Your task to perform on an android device: Open Google Chrome and click the shortcut for Amazon.com Image 0: 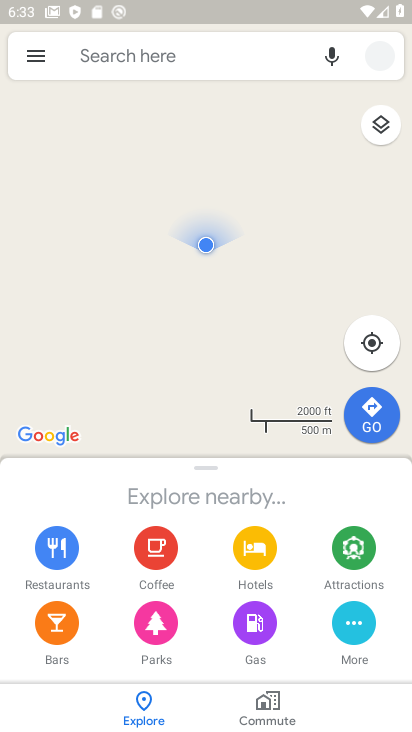
Step 0: drag from (221, 508) to (325, 202)
Your task to perform on an android device: Open Google Chrome and click the shortcut for Amazon.com Image 1: 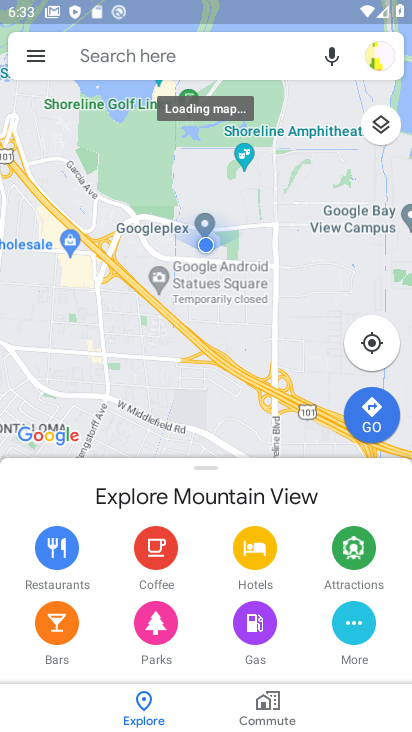
Step 1: press home button
Your task to perform on an android device: Open Google Chrome and click the shortcut for Amazon.com Image 2: 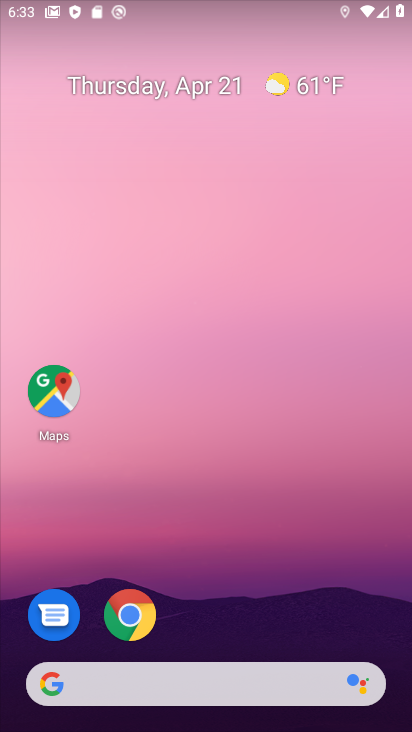
Step 2: drag from (193, 626) to (262, 208)
Your task to perform on an android device: Open Google Chrome and click the shortcut for Amazon.com Image 3: 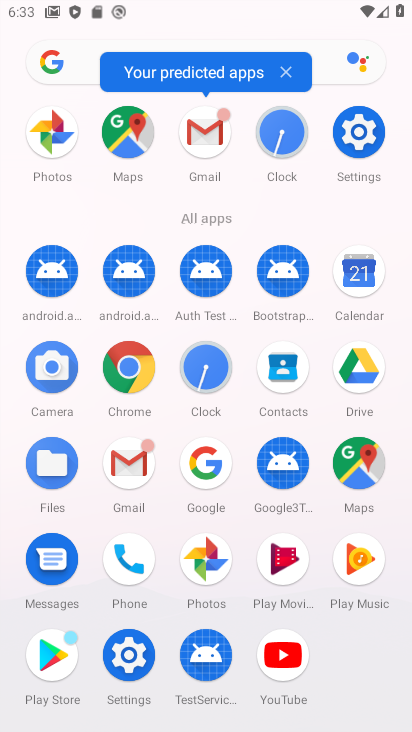
Step 3: click (133, 365)
Your task to perform on an android device: Open Google Chrome and click the shortcut for Amazon.com Image 4: 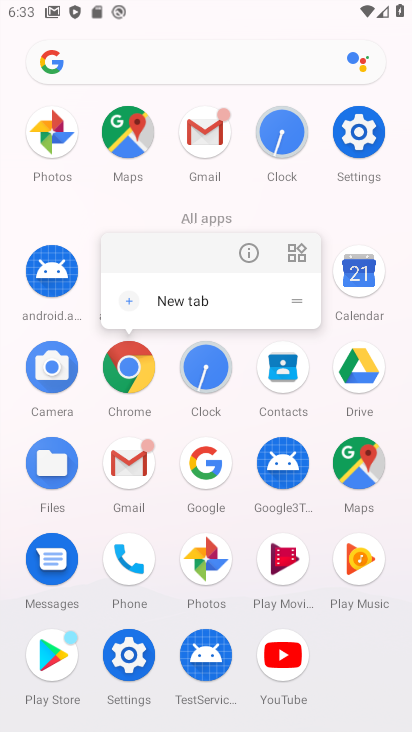
Step 4: click (251, 248)
Your task to perform on an android device: Open Google Chrome and click the shortcut for Amazon.com Image 5: 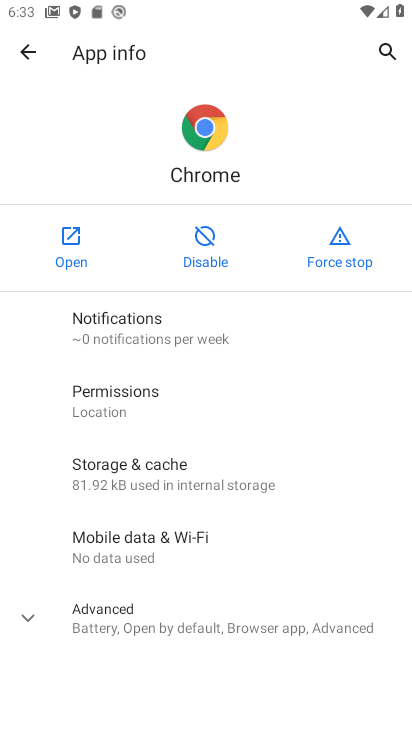
Step 5: click (53, 241)
Your task to perform on an android device: Open Google Chrome and click the shortcut for Amazon.com Image 6: 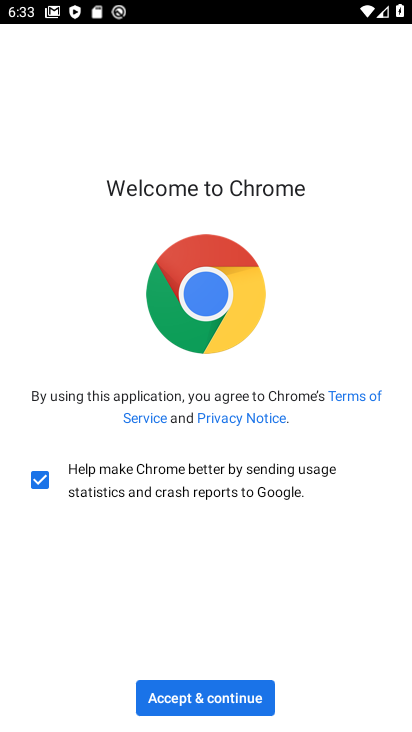
Step 6: click (228, 712)
Your task to perform on an android device: Open Google Chrome and click the shortcut for Amazon.com Image 7: 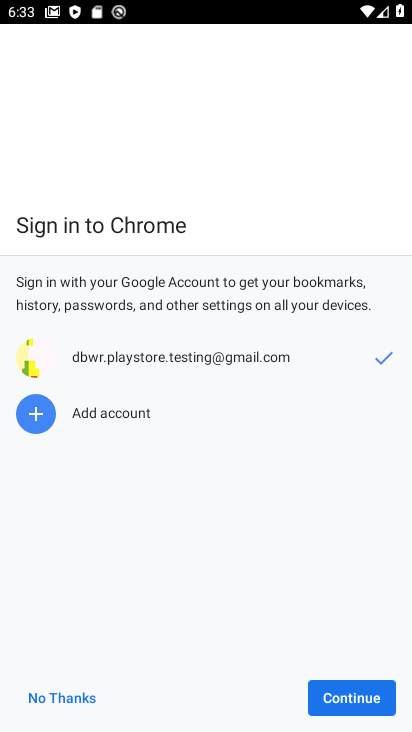
Step 7: click (326, 695)
Your task to perform on an android device: Open Google Chrome and click the shortcut for Amazon.com Image 8: 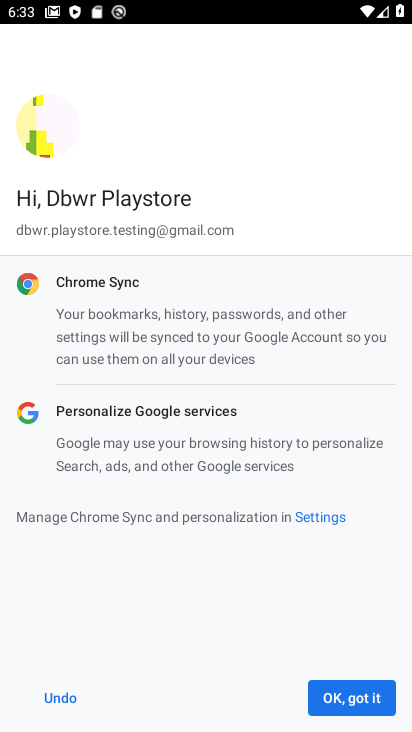
Step 8: click (336, 705)
Your task to perform on an android device: Open Google Chrome and click the shortcut for Amazon.com Image 9: 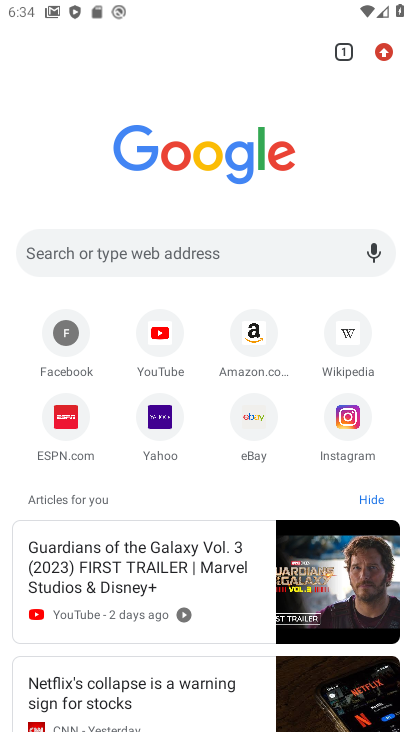
Step 9: click (252, 337)
Your task to perform on an android device: Open Google Chrome and click the shortcut for Amazon.com Image 10: 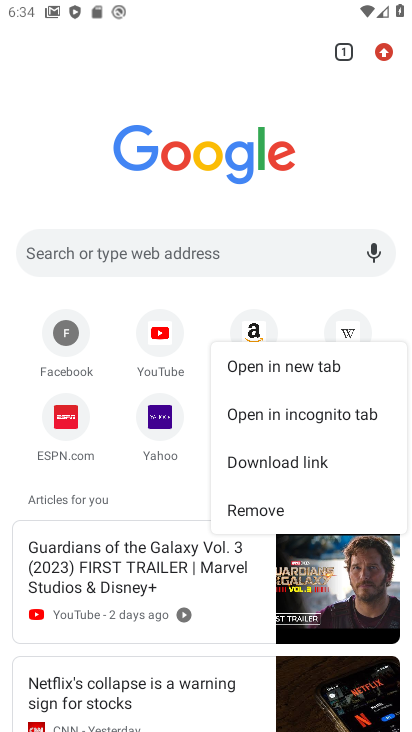
Step 10: click (265, 332)
Your task to perform on an android device: Open Google Chrome and click the shortcut for Amazon.com Image 11: 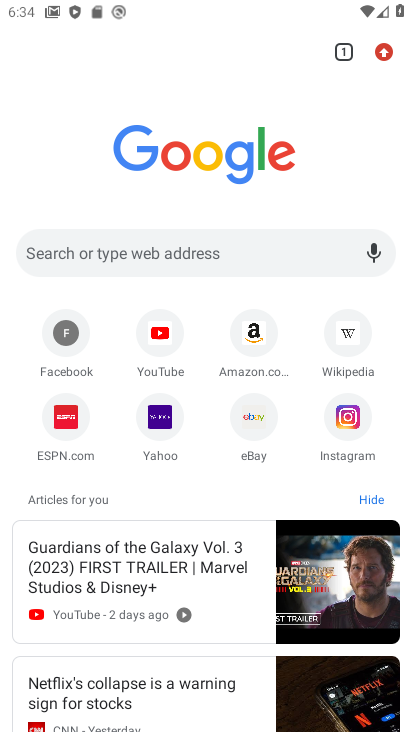
Step 11: click (265, 332)
Your task to perform on an android device: Open Google Chrome and click the shortcut for Amazon.com Image 12: 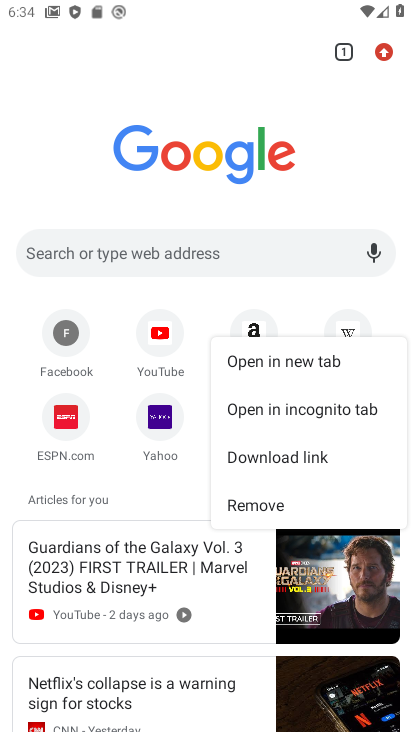
Step 12: click (258, 332)
Your task to perform on an android device: Open Google Chrome and click the shortcut for Amazon.com Image 13: 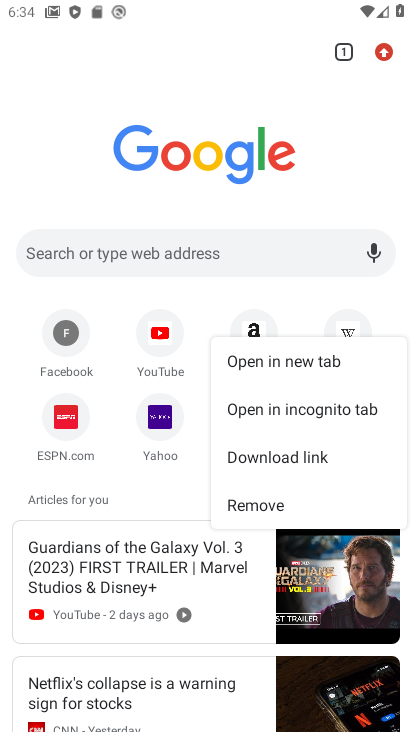
Step 13: click (255, 343)
Your task to perform on an android device: Open Google Chrome and click the shortcut for Amazon.com Image 14: 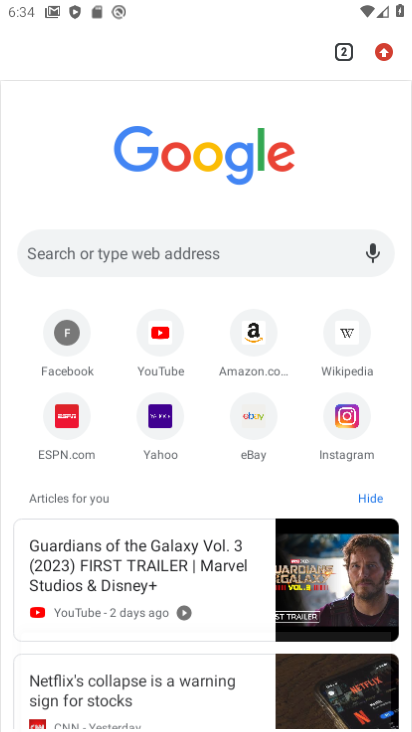
Step 14: click (340, 189)
Your task to perform on an android device: Open Google Chrome and click the shortcut for Amazon.com Image 15: 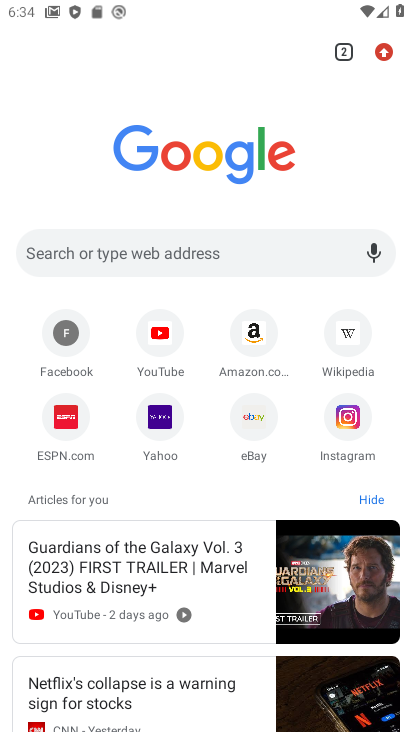
Step 15: click (241, 337)
Your task to perform on an android device: Open Google Chrome and click the shortcut for Amazon.com Image 16: 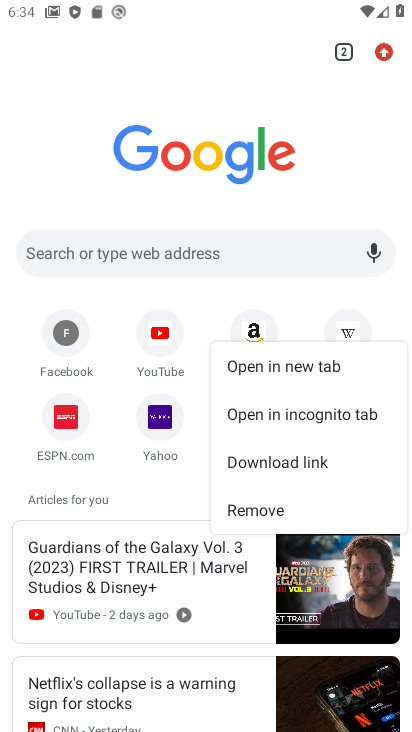
Step 16: click (257, 382)
Your task to perform on an android device: Open Google Chrome and click the shortcut for Amazon.com Image 17: 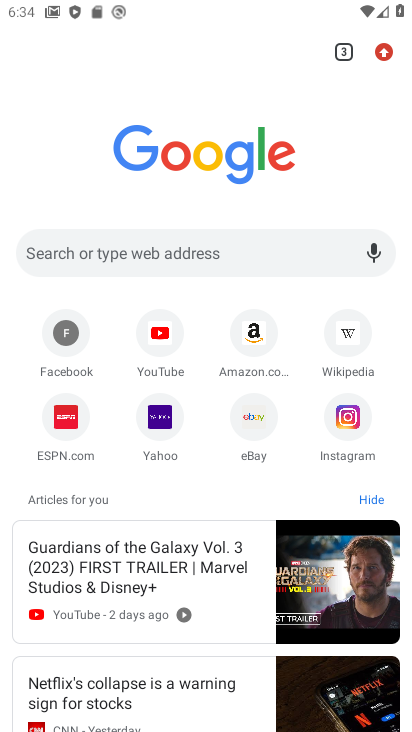
Step 17: click (260, 342)
Your task to perform on an android device: Open Google Chrome and click the shortcut for Amazon.com Image 18: 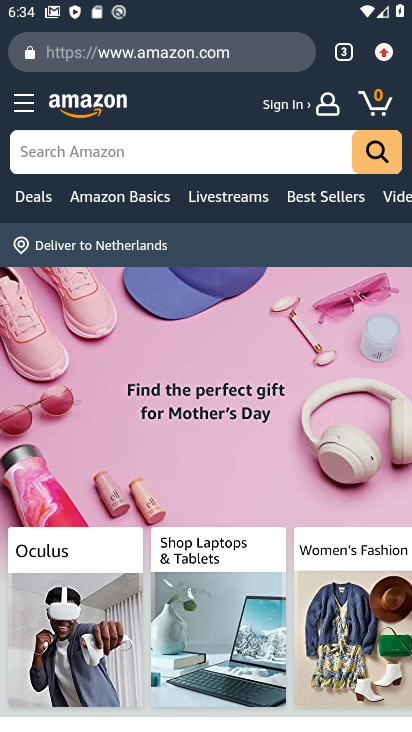
Step 18: task complete